Your task to perform on an android device: open a bookmark in the chrome app Image 0: 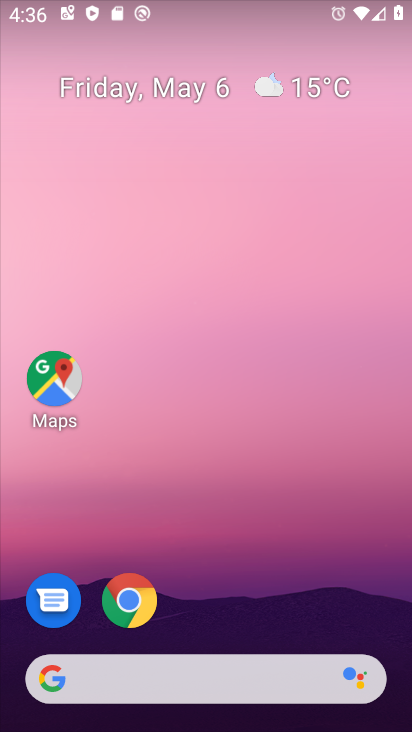
Step 0: click (136, 586)
Your task to perform on an android device: open a bookmark in the chrome app Image 1: 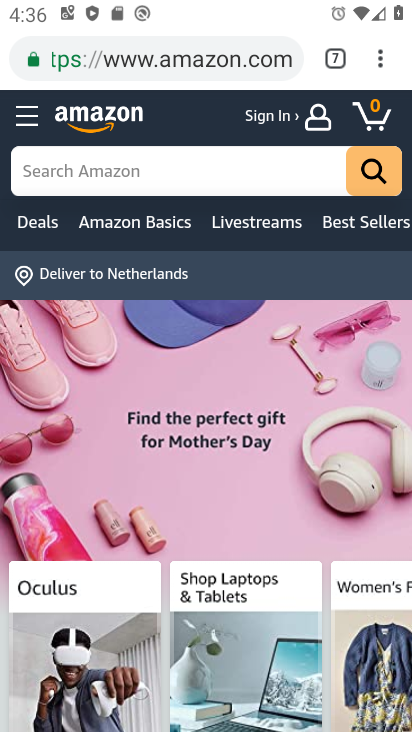
Step 1: click (385, 61)
Your task to perform on an android device: open a bookmark in the chrome app Image 2: 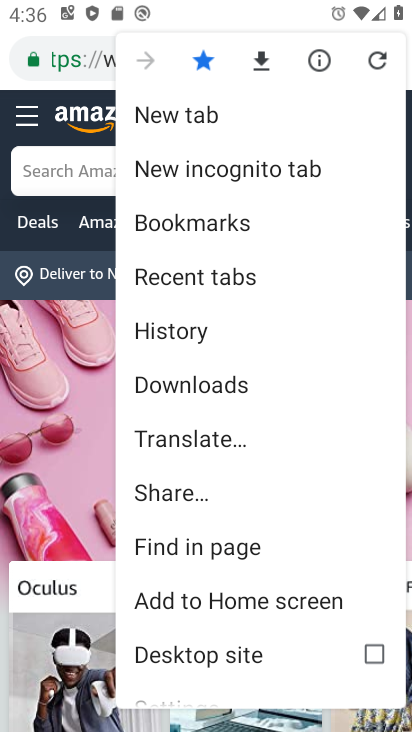
Step 2: click (220, 232)
Your task to perform on an android device: open a bookmark in the chrome app Image 3: 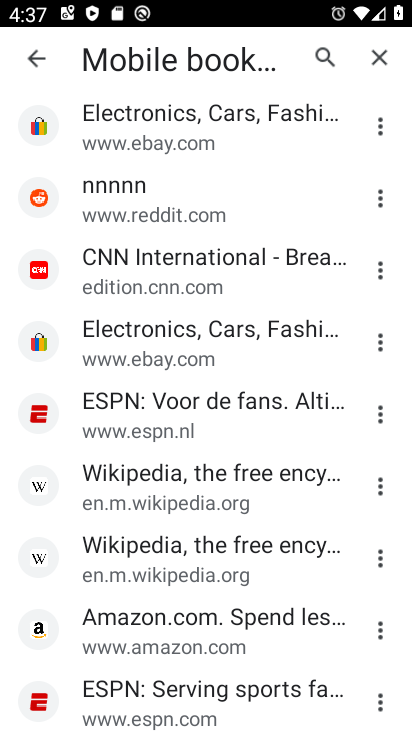
Step 3: click (202, 483)
Your task to perform on an android device: open a bookmark in the chrome app Image 4: 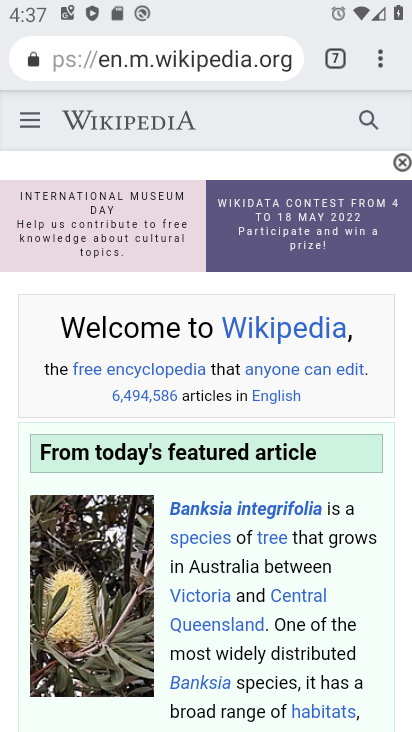
Step 4: task complete